Your task to perform on an android device: see sites visited before in the chrome app Image 0: 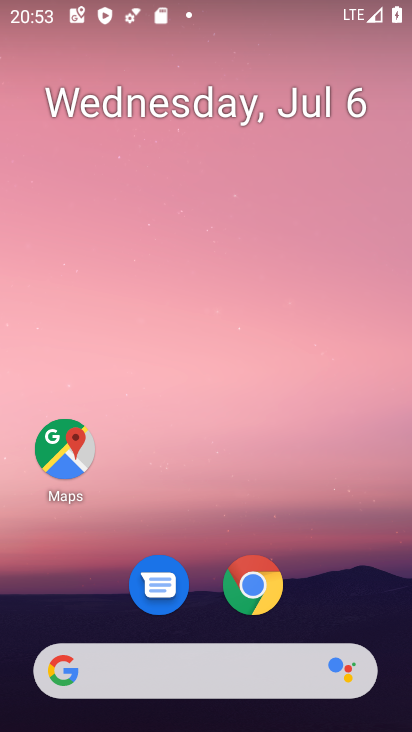
Step 0: click (246, 574)
Your task to perform on an android device: see sites visited before in the chrome app Image 1: 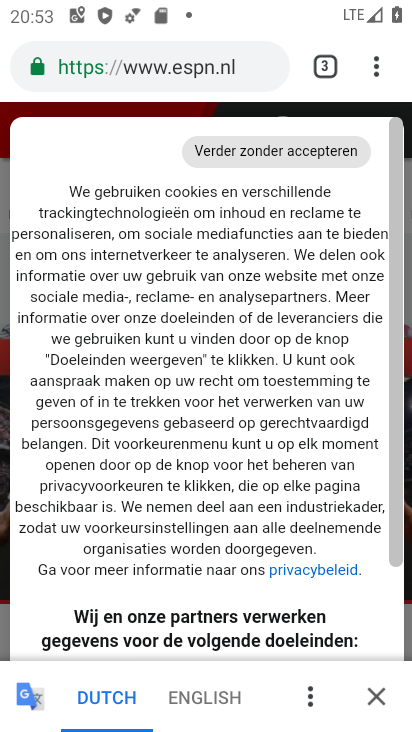
Step 1: click (377, 59)
Your task to perform on an android device: see sites visited before in the chrome app Image 2: 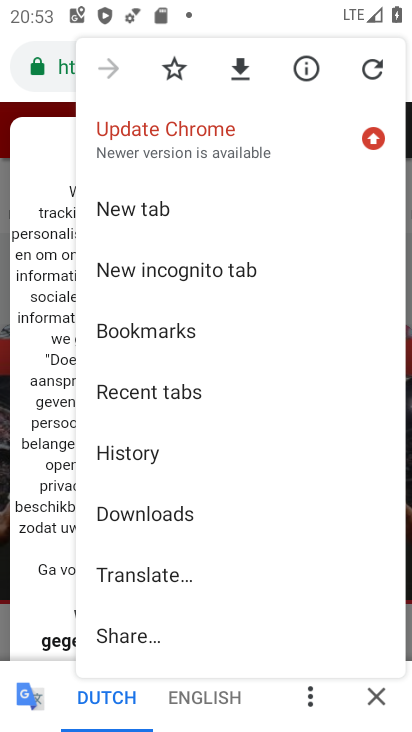
Step 2: click (145, 392)
Your task to perform on an android device: see sites visited before in the chrome app Image 3: 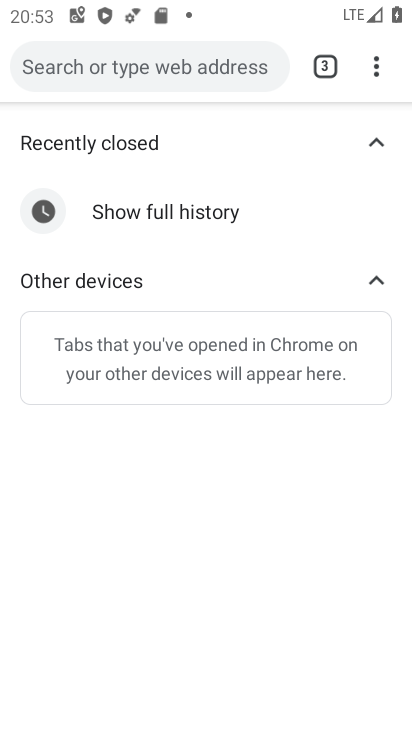
Step 3: task complete